Your task to perform on an android device: show emergency info Image 0: 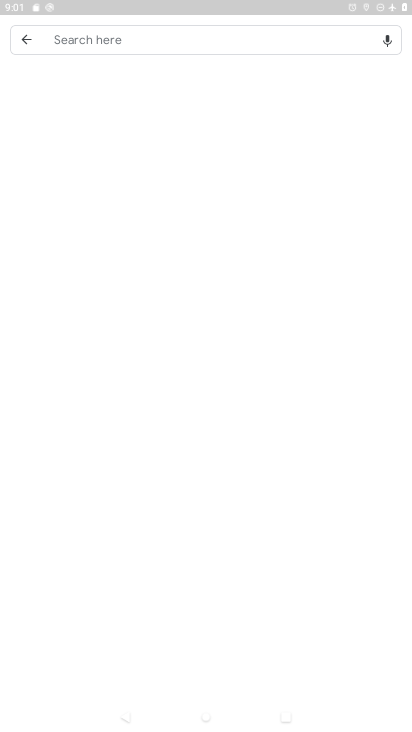
Step 0: press home button
Your task to perform on an android device: show emergency info Image 1: 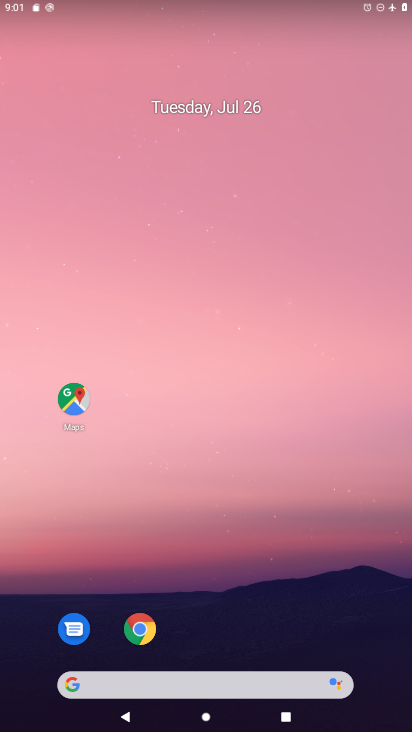
Step 1: drag from (217, 667) to (262, 6)
Your task to perform on an android device: show emergency info Image 2: 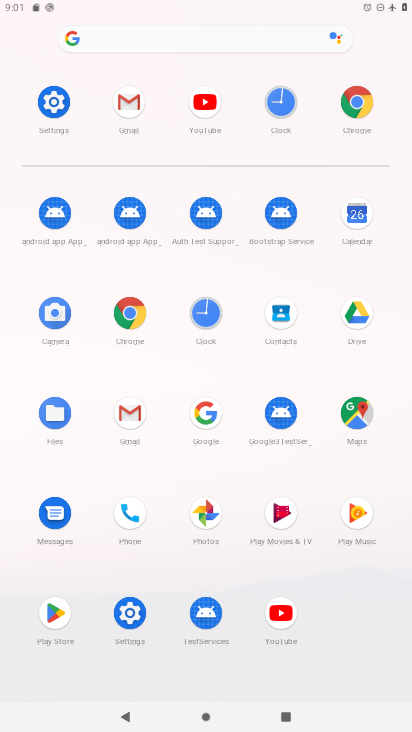
Step 2: click (47, 112)
Your task to perform on an android device: show emergency info Image 3: 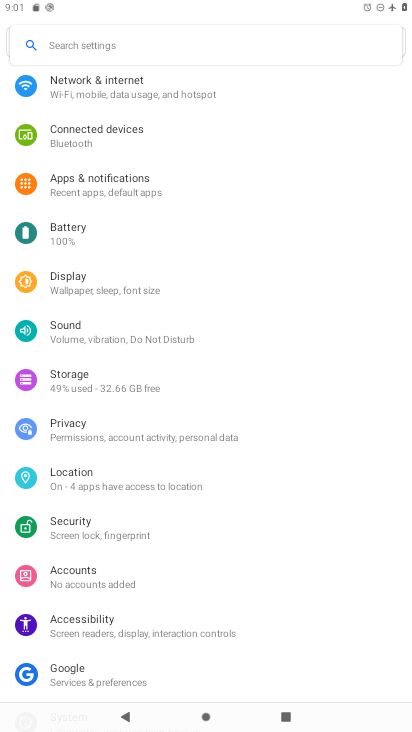
Step 3: drag from (140, 516) to (142, 40)
Your task to perform on an android device: show emergency info Image 4: 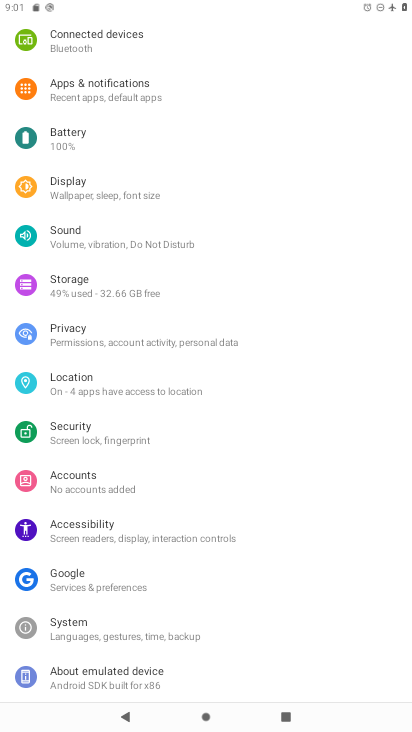
Step 4: click (140, 687)
Your task to perform on an android device: show emergency info Image 5: 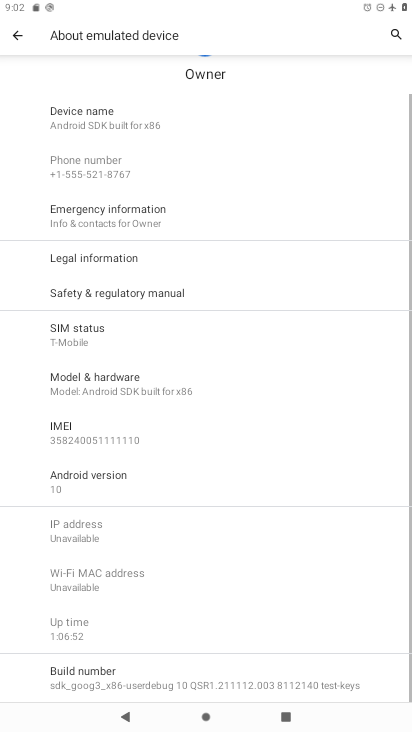
Step 5: click (72, 218)
Your task to perform on an android device: show emergency info Image 6: 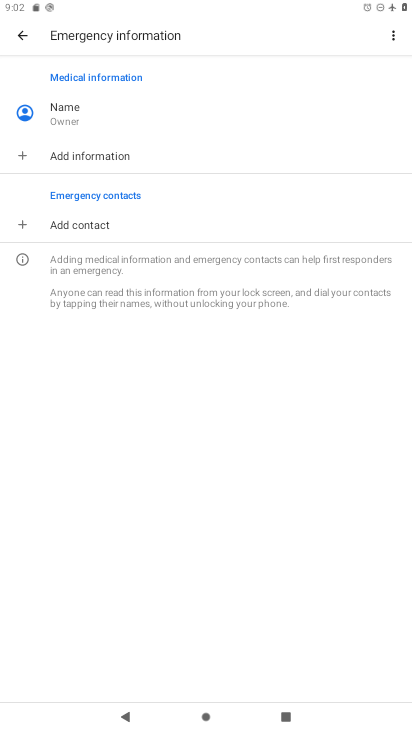
Step 6: task complete